Your task to perform on an android device: Open Google Maps Image 0: 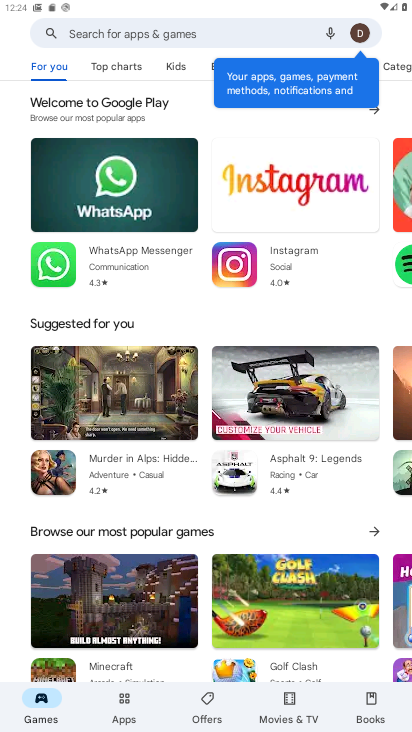
Step 0: press home button
Your task to perform on an android device: Open Google Maps Image 1: 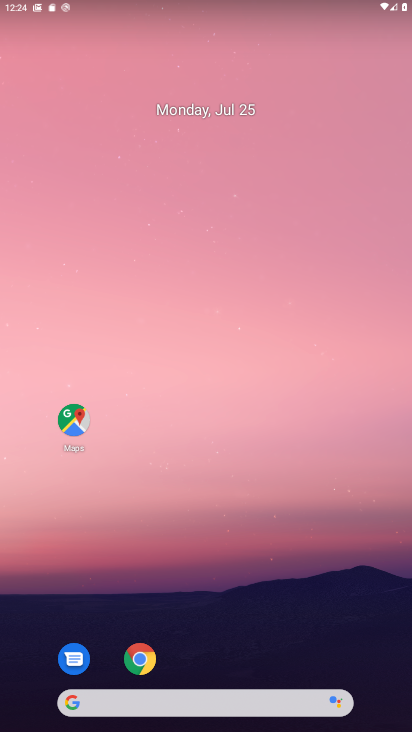
Step 1: click (78, 418)
Your task to perform on an android device: Open Google Maps Image 2: 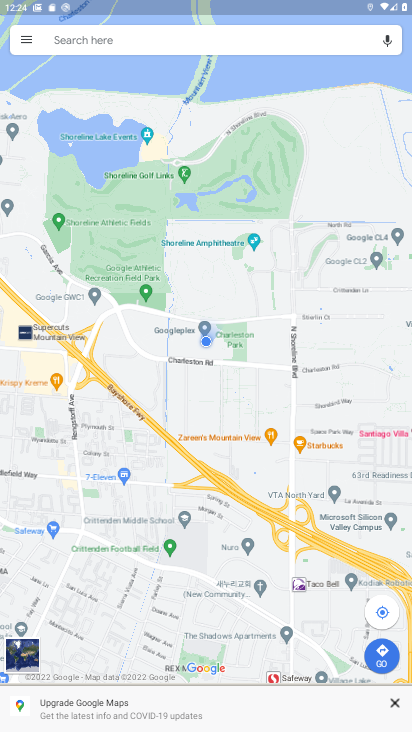
Step 2: task complete